Your task to perform on an android device: Clear all items from cart on newegg.com. Image 0: 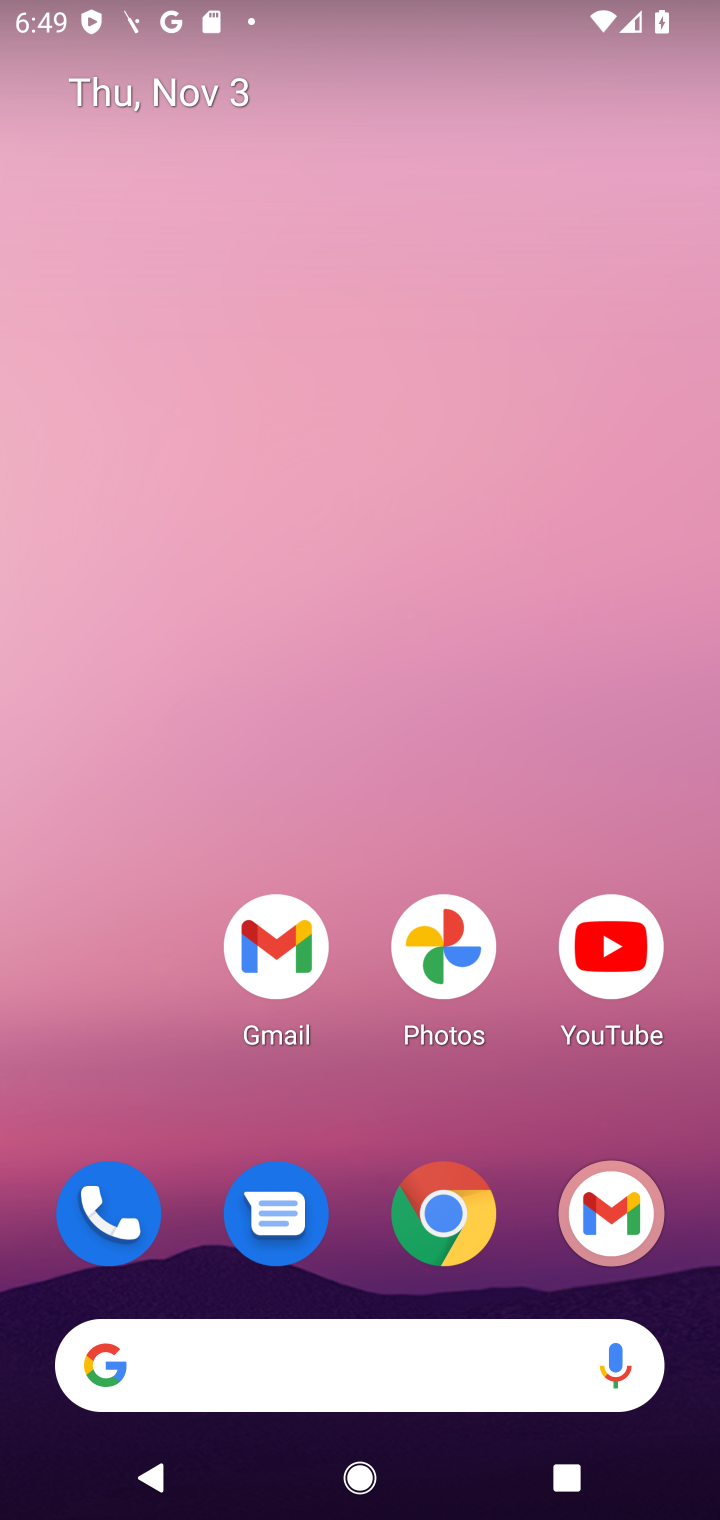
Step 0: click (450, 1235)
Your task to perform on an android device: Clear all items from cart on newegg.com. Image 1: 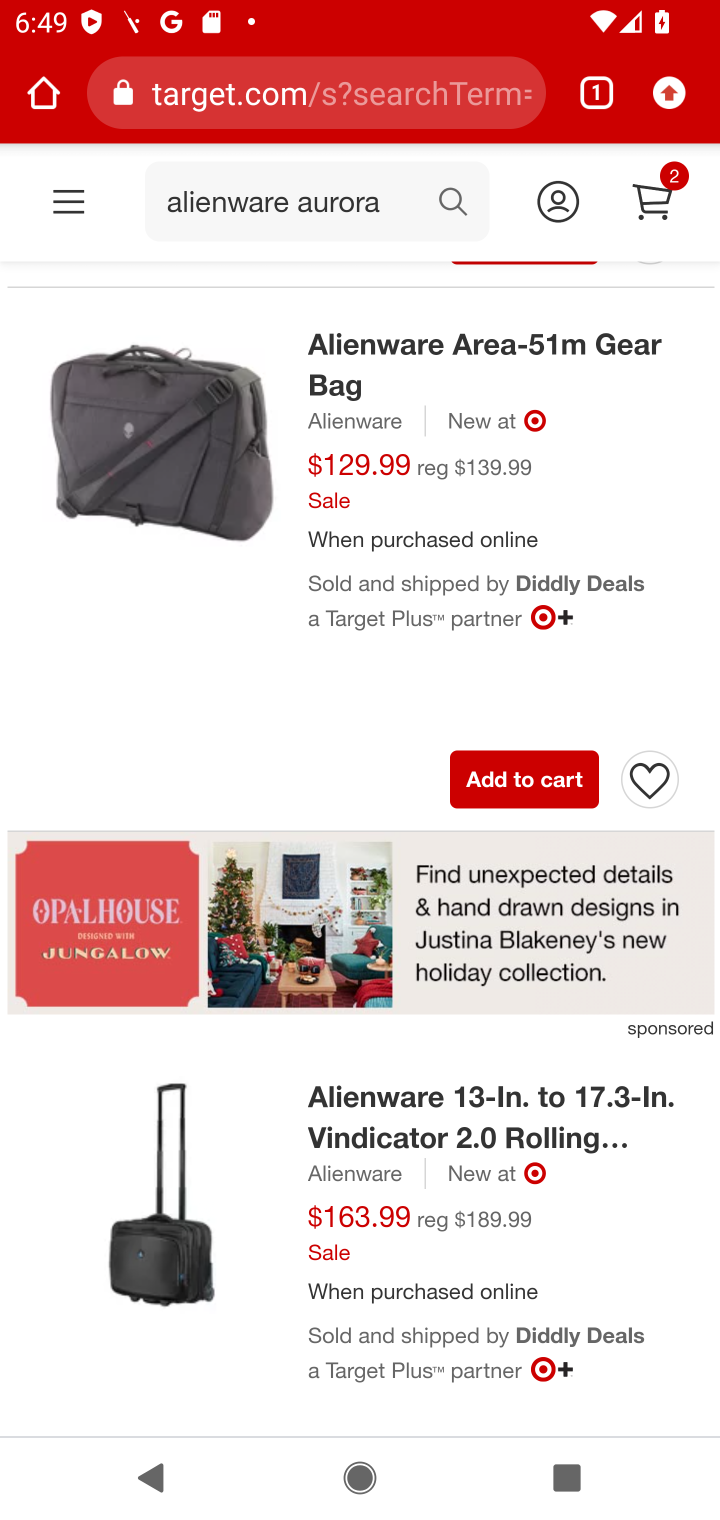
Step 1: click (347, 113)
Your task to perform on an android device: Clear all items from cart on newegg.com. Image 2: 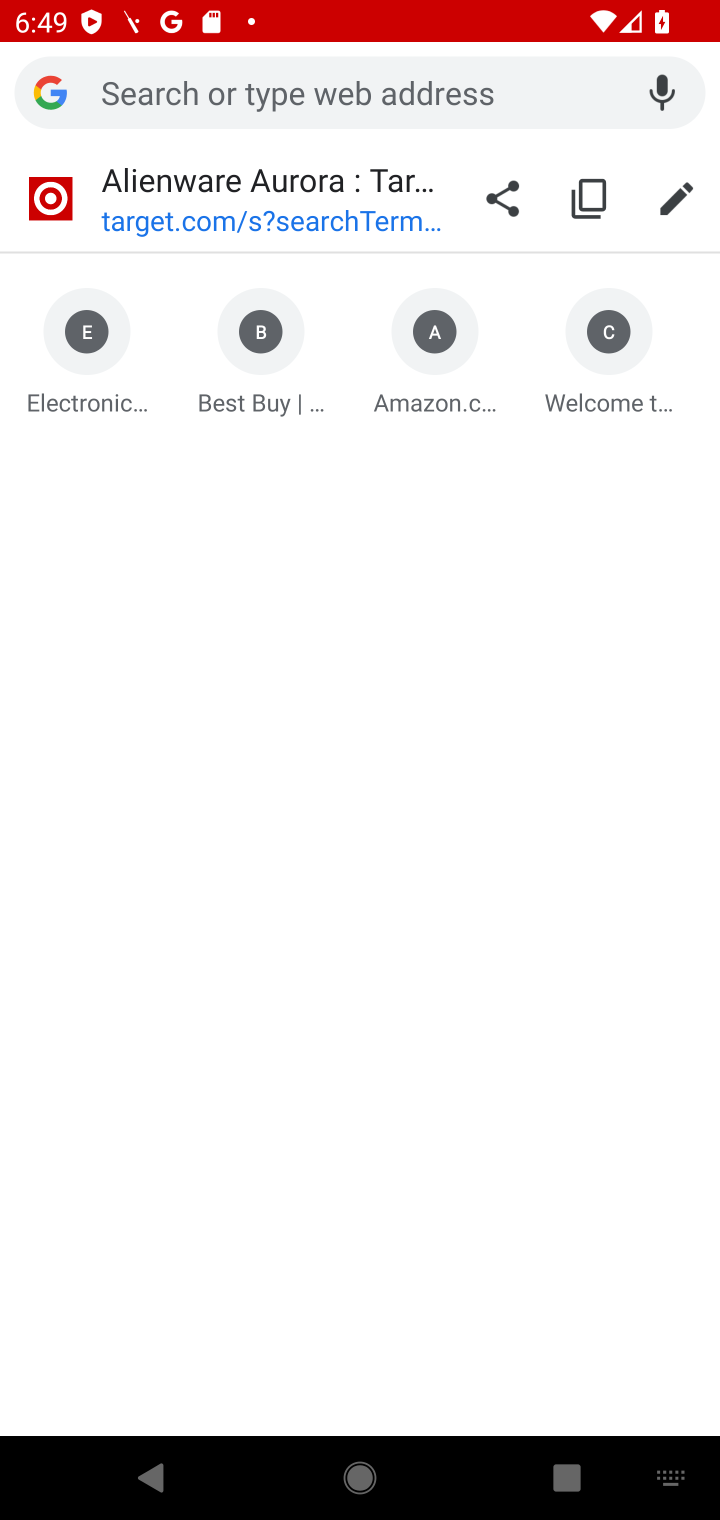
Step 2: type "newegg.com"
Your task to perform on an android device: Clear all items from cart on newegg.com. Image 3: 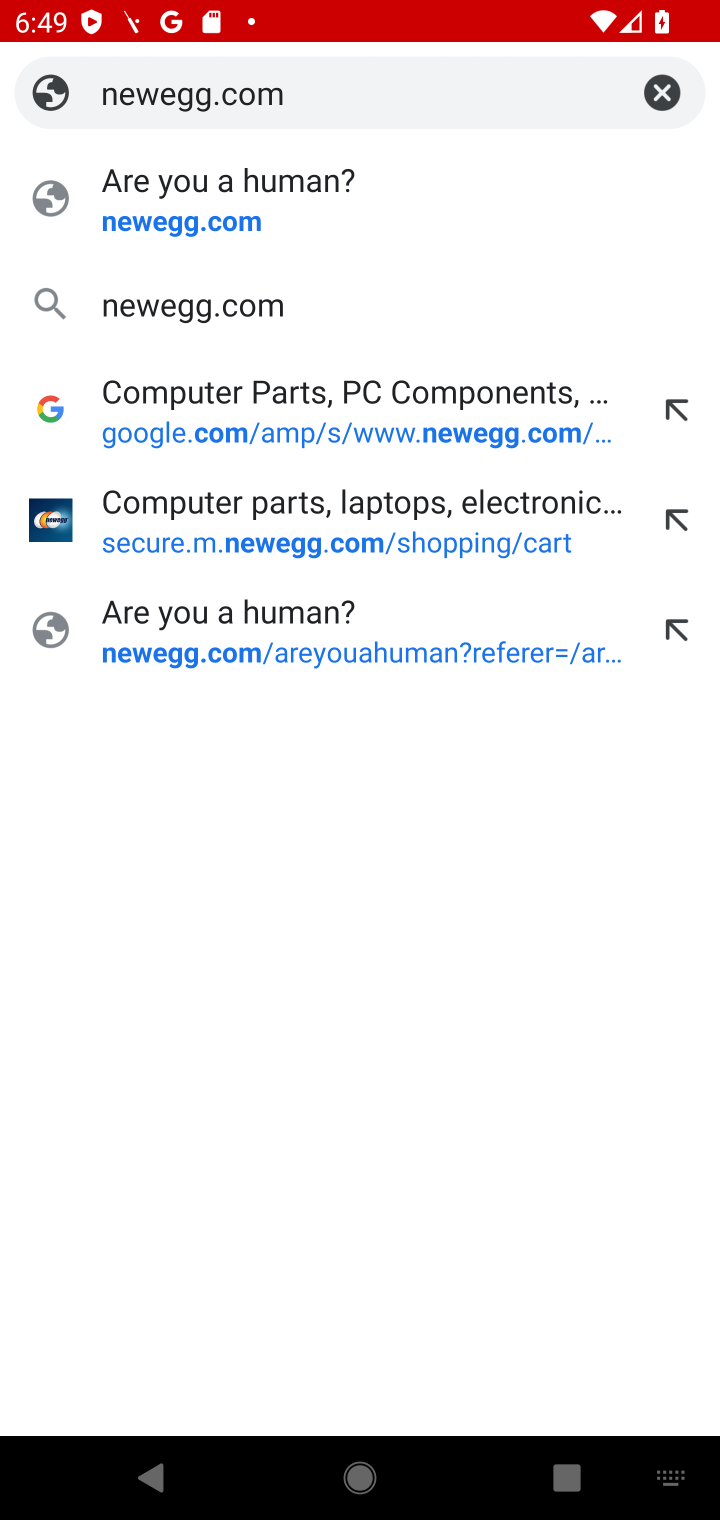
Step 3: click (183, 329)
Your task to perform on an android device: Clear all items from cart on newegg.com. Image 4: 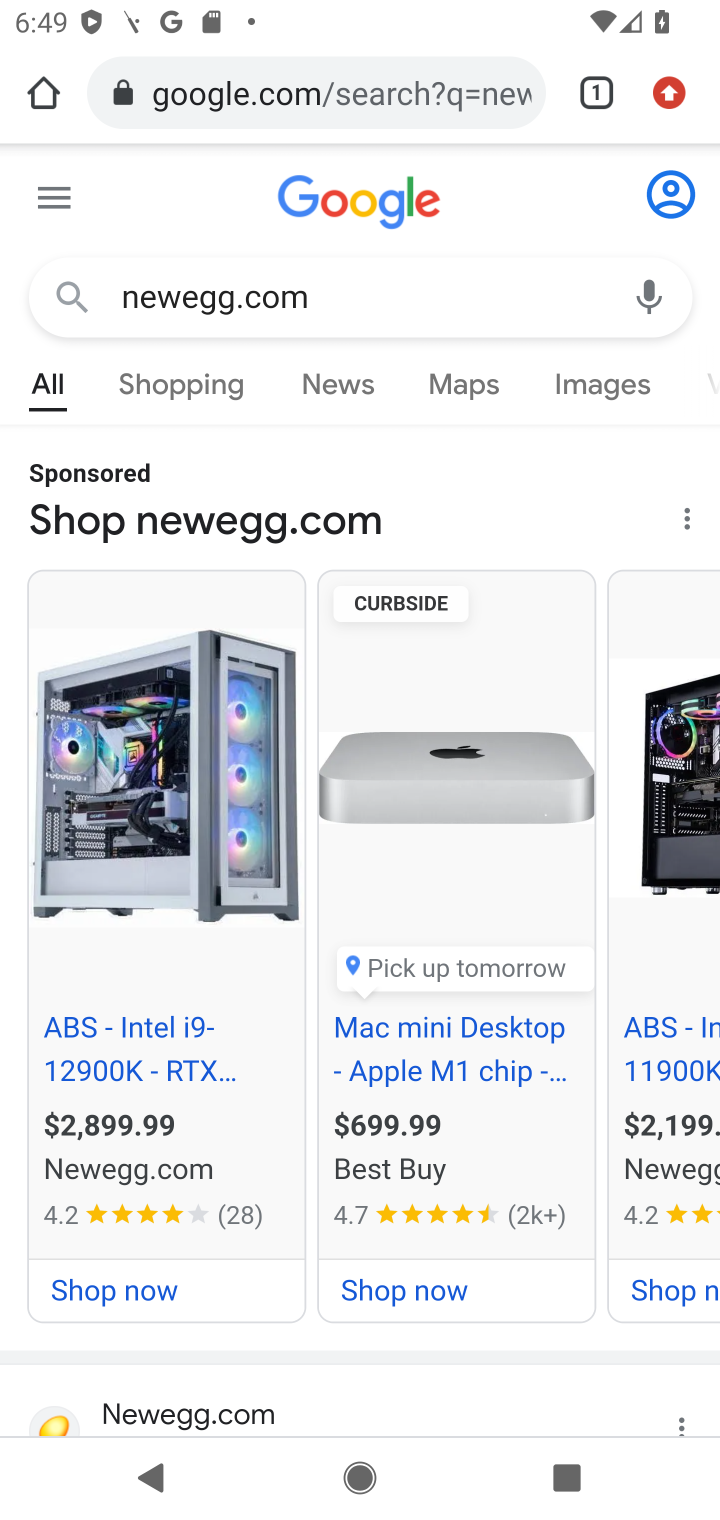
Step 4: drag from (315, 1178) to (327, 567)
Your task to perform on an android device: Clear all items from cart on newegg.com. Image 5: 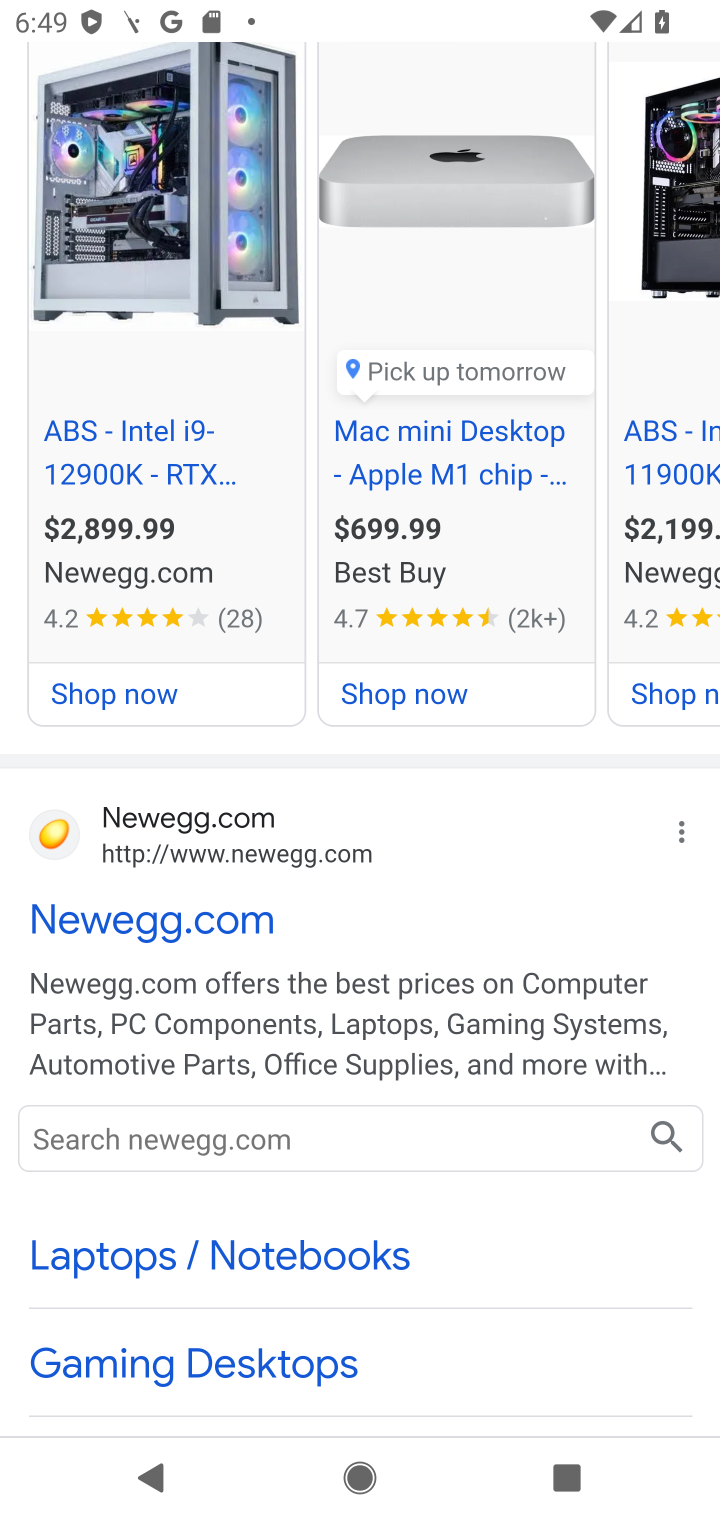
Step 5: click (124, 934)
Your task to perform on an android device: Clear all items from cart on newegg.com. Image 6: 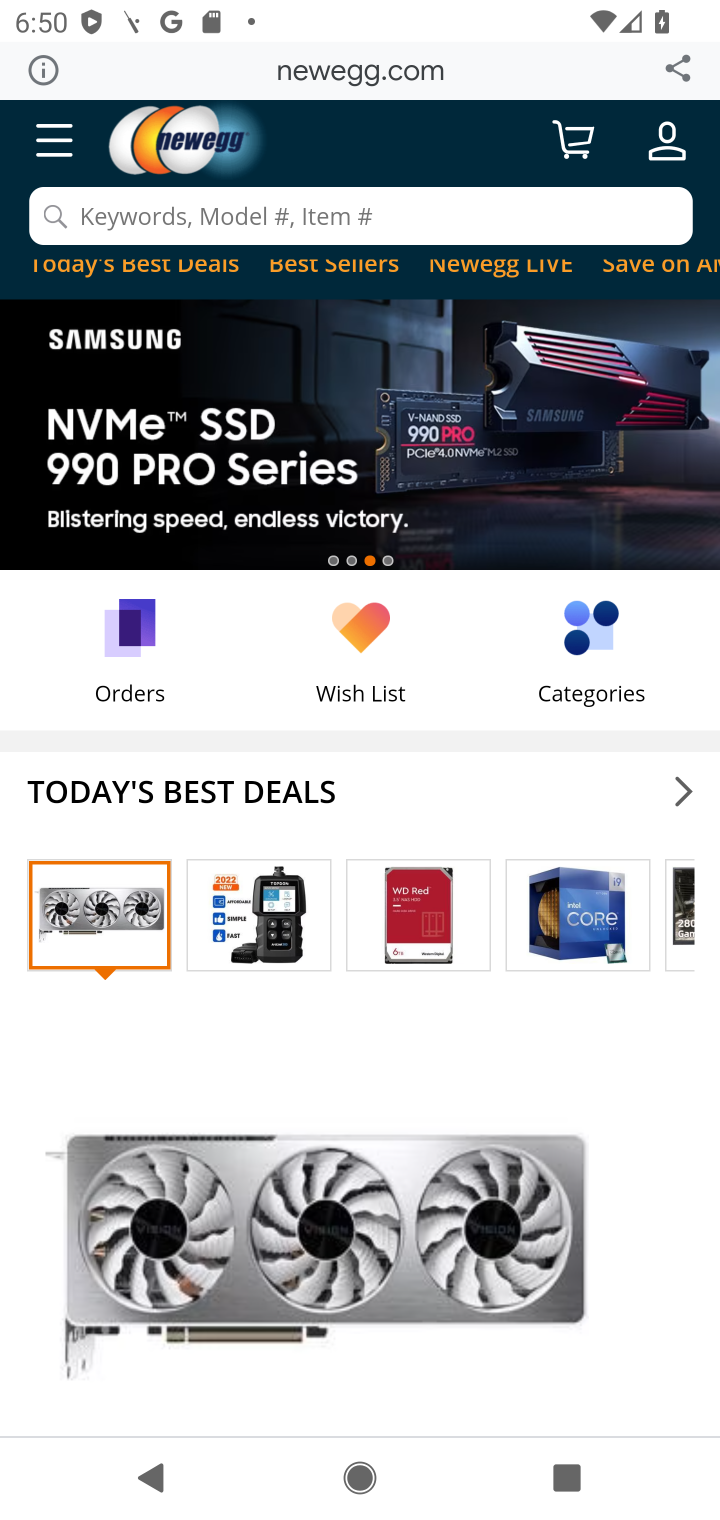
Step 6: click (570, 153)
Your task to perform on an android device: Clear all items from cart on newegg.com. Image 7: 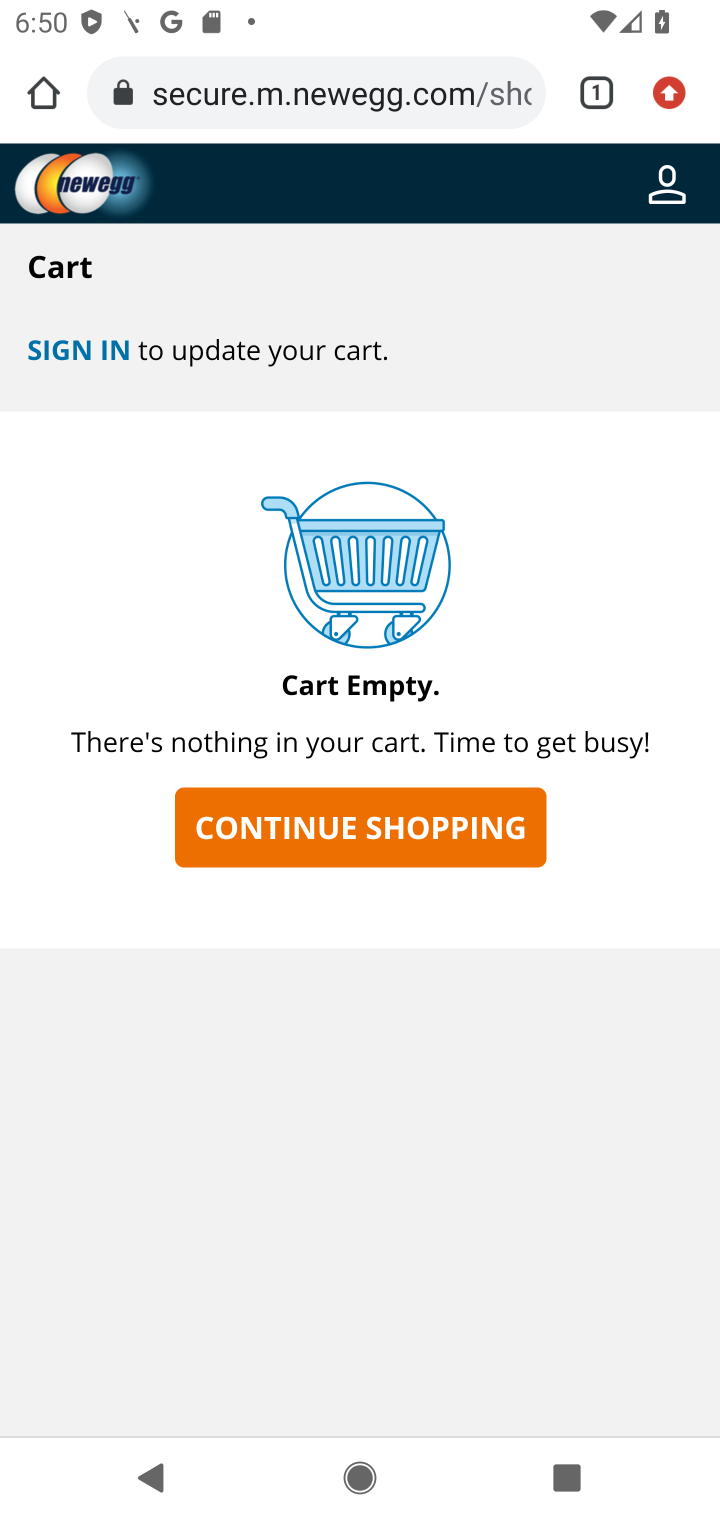
Step 7: task complete